Your task to perform on an android device: Open wifi settings Image 0: 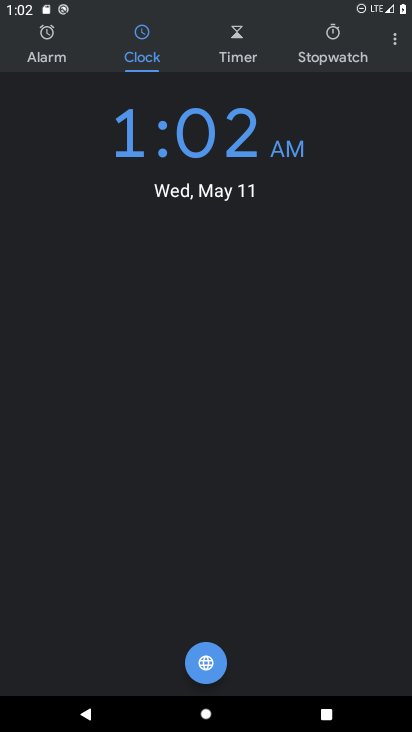
Step 0: press home button
Your task to perform on an android device: Open wifi settings Image 1: 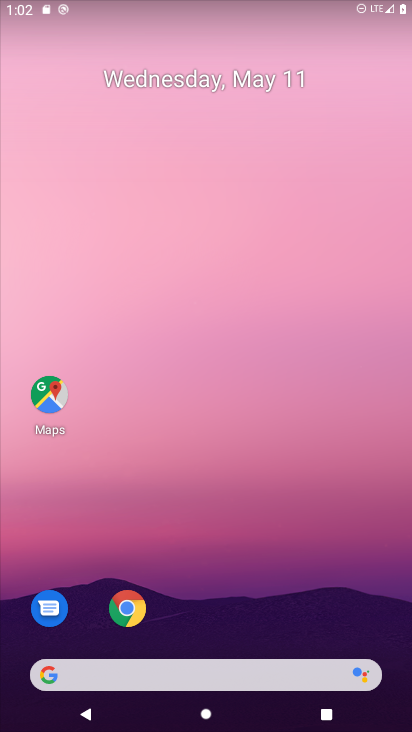
Step 1: drag from (247, 476) to (254, 32)
Your task to perform on an android device: Open wifi settings Image 2: 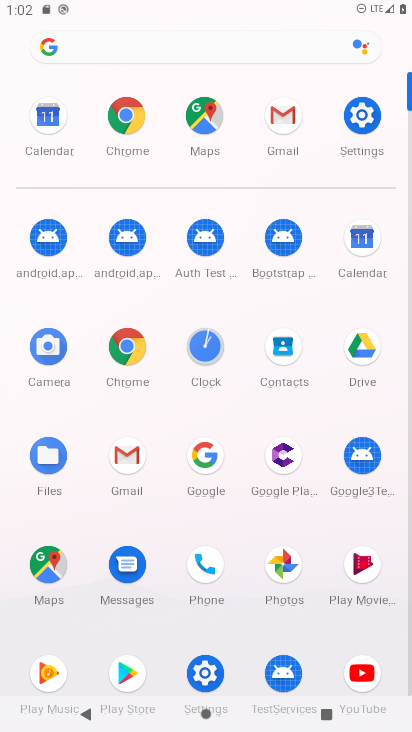
Step 2: click (361, 107)
Your task to perform on an android device: Open wifi settings Image 3: 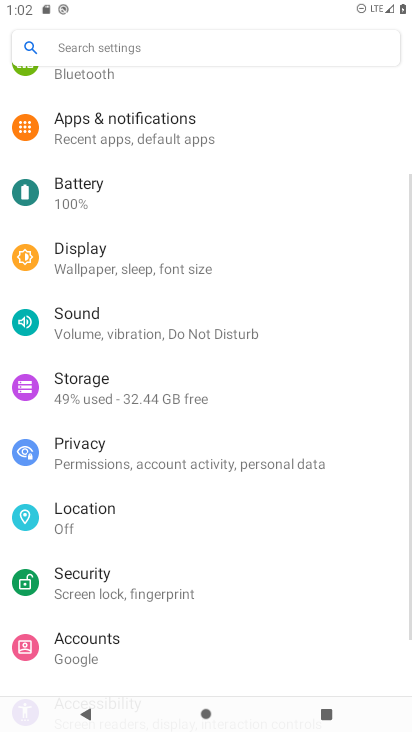
Step 3: drag from (248, 247) to (220, 543)
Your task to perform on an android device: Open wifi settings Image 4: 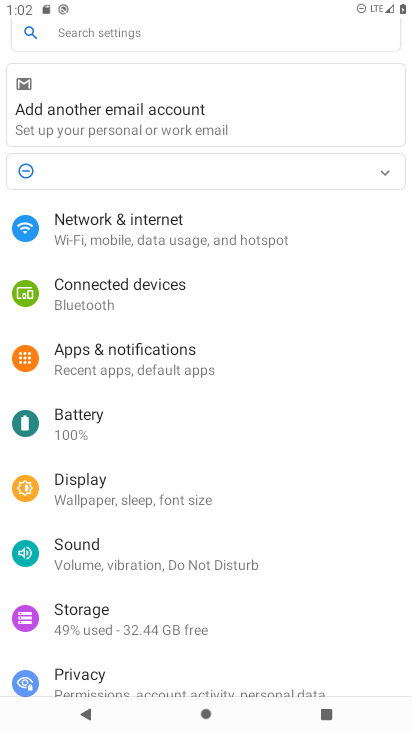
Step 4: click (189, 233)
Your task to perform on an android device: Open wifi settings Image 5: 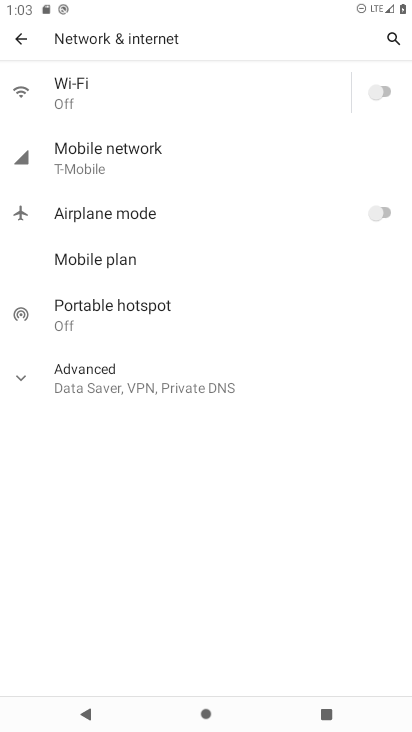
Step 5: click (94, 86)
Your task to perform on an android device: Open wifi settings Image 6: 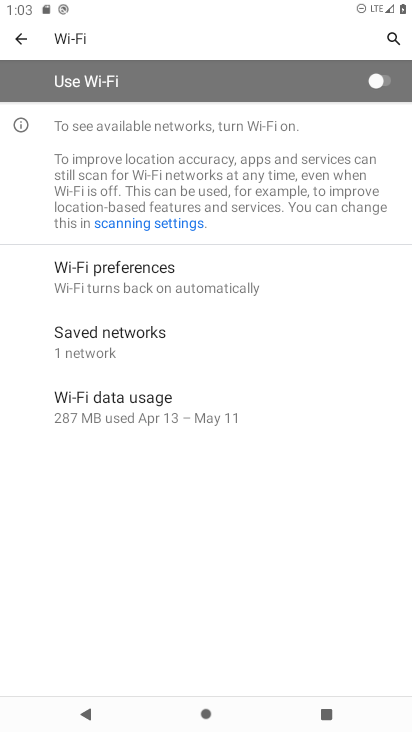
Step 6: task complete